Your task to perform on an android device: Go to Android settings Image 0: 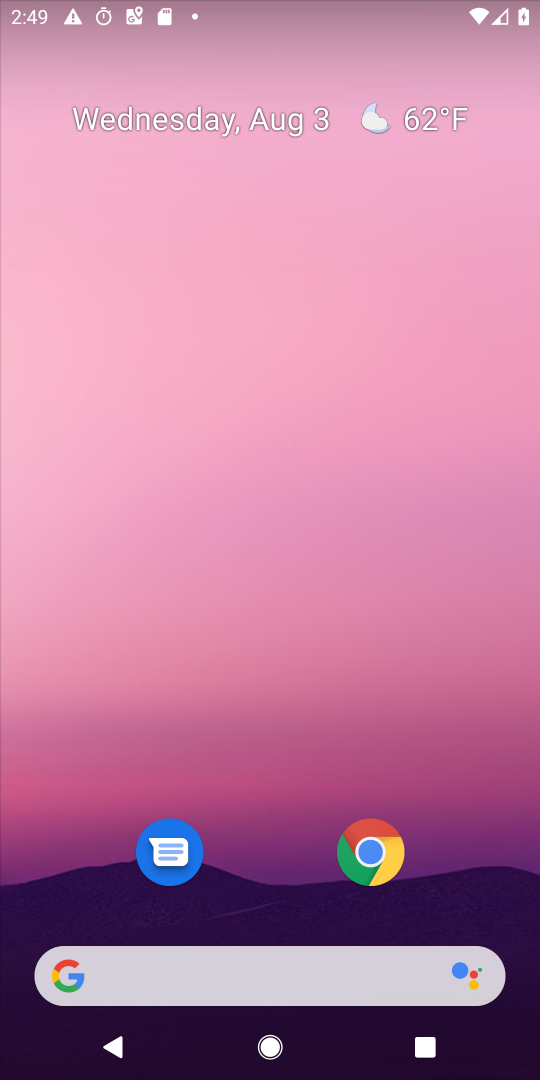
Step 0: drag from (437, 644) to (296, 179)
Your task to perform on an android device: Go to Android settings Image 1: 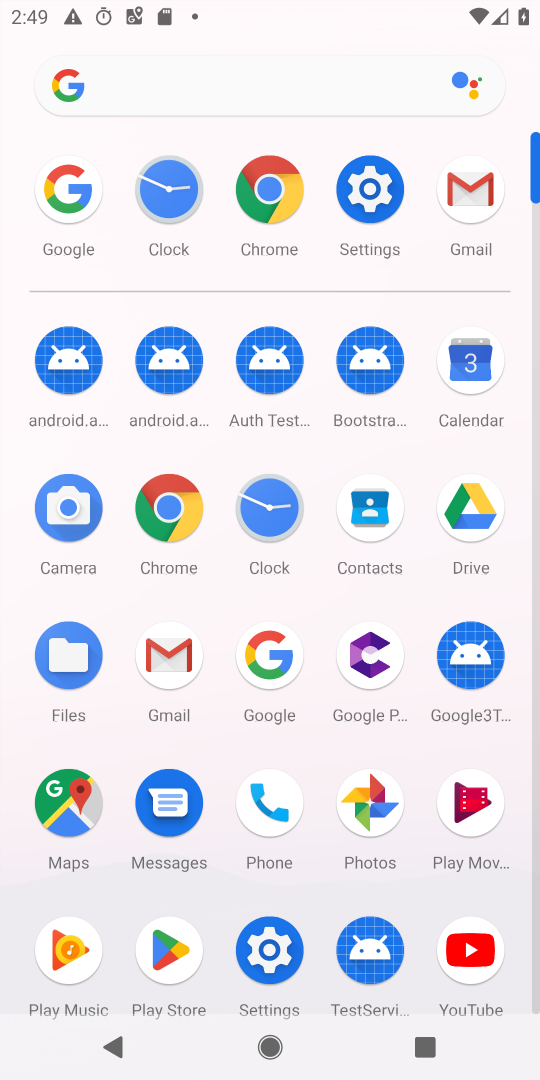
Step 1: click (349, 203)
Your task to perform on an android device: Go to Android settings Image 2: 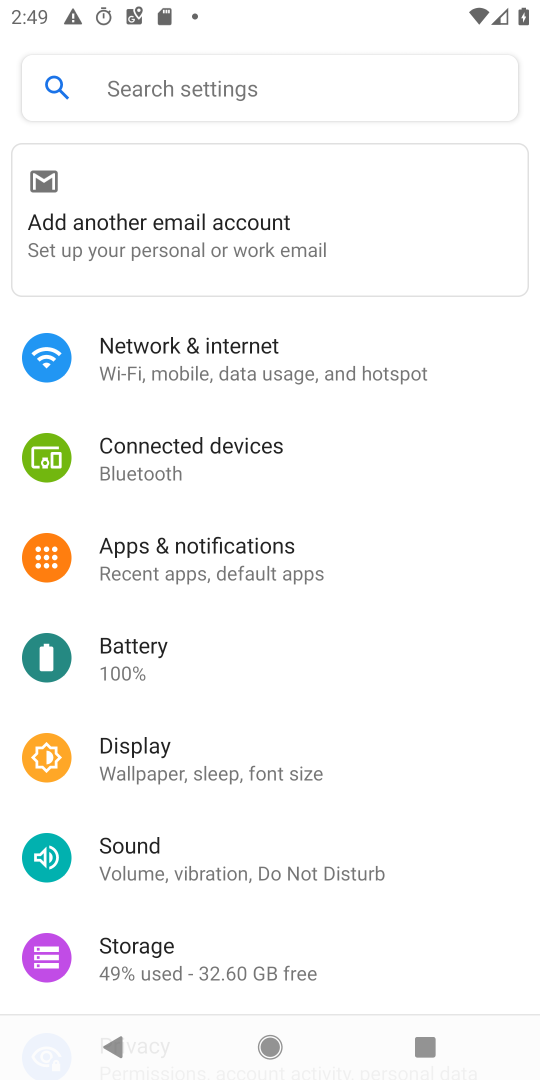
Step 2: task complete